Your task to perform on an android device: Show me recent news Image 0: 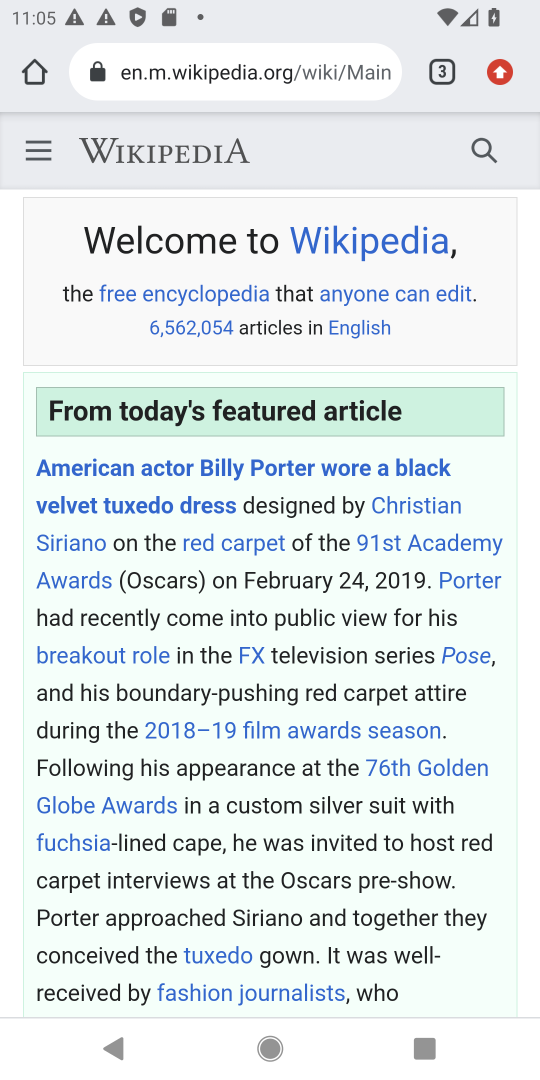
Step 0: click (296, 70)
Your task to perform on an android device: Show me recent news Image 1: 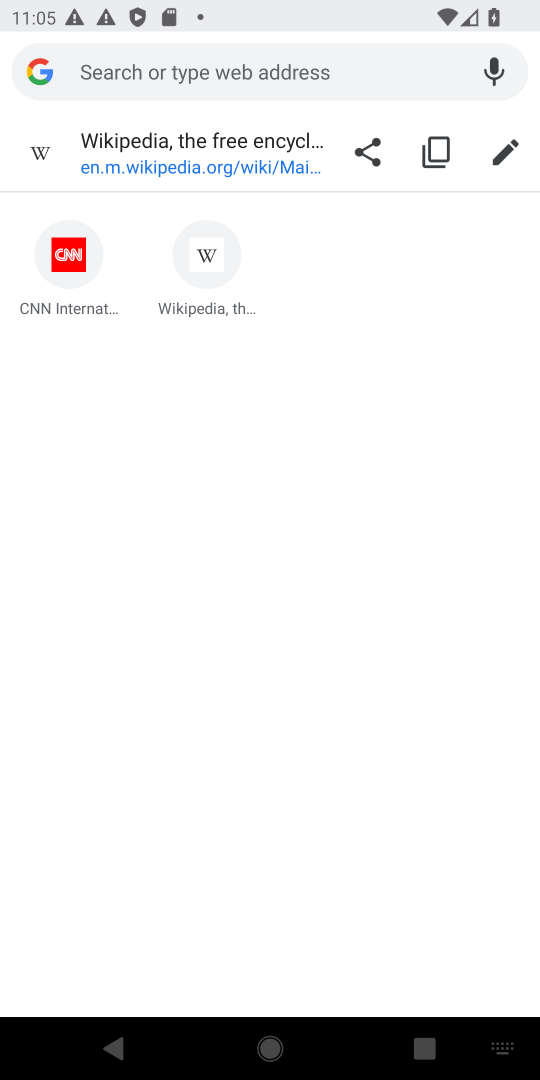
Step 1: type "recent news"
Your task to perform on an android device: Show me recent news Image 2: 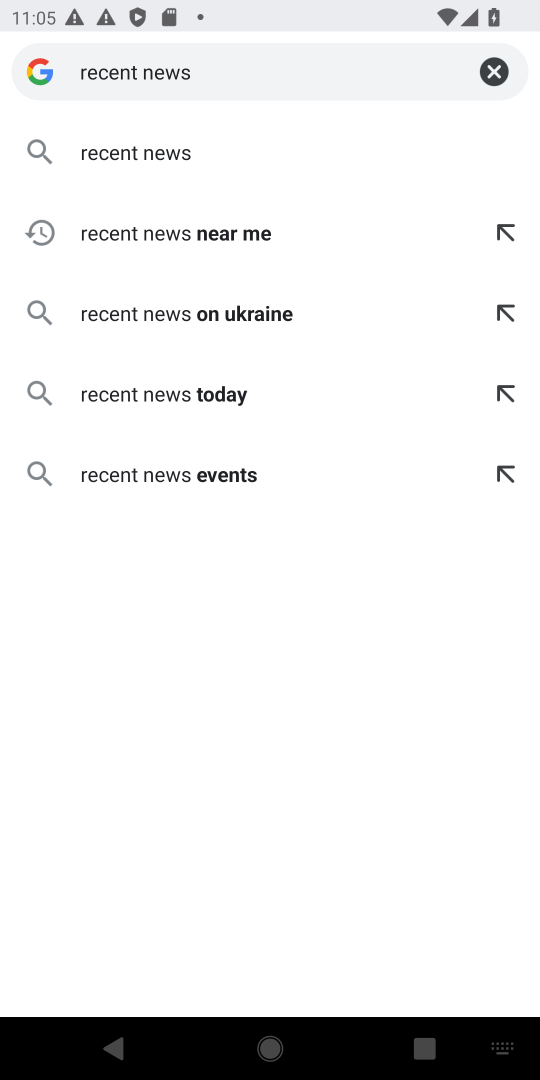
Step 2: click (156, 166)
Your task to perform on an android device: Show me recent news Image 3: 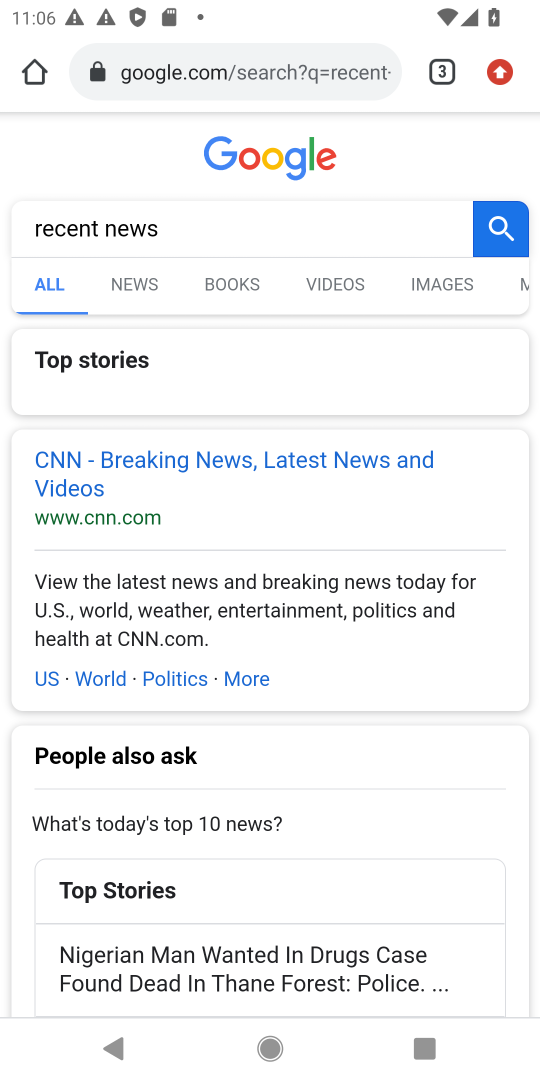
Step 3: task complete